Your task to perform on an android device: make emails show in primary in the gmail app Image 0: 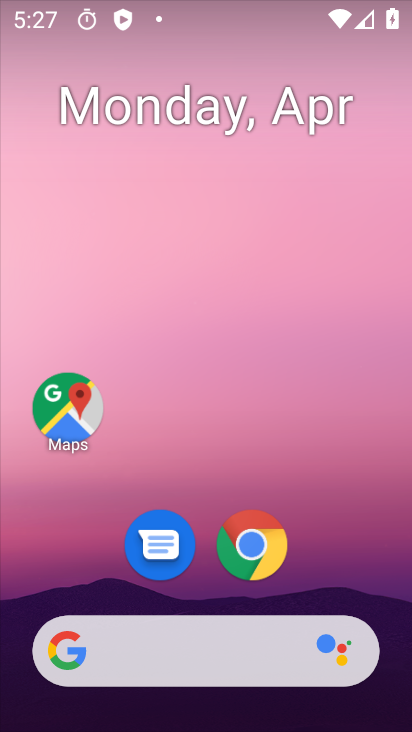
Step 0: drag from (330, 519) to (356, 184)
Your task to perform on an android device: make emails show in primary in the gmail app Image 1: 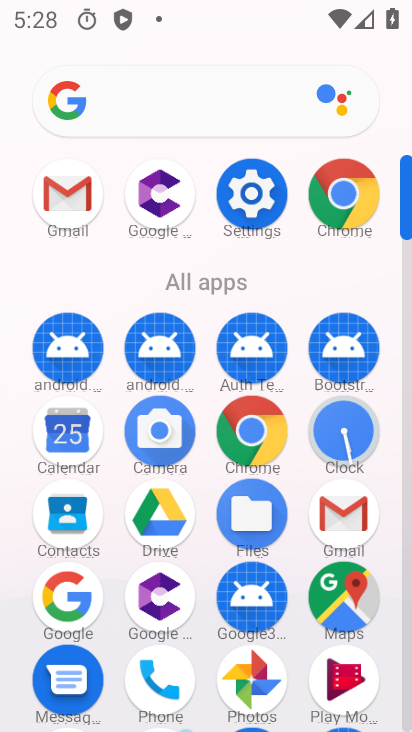
Step 1: click (348, 513)
Your task to perform on an android device: make emails show in primary in the gmail app Image 2: 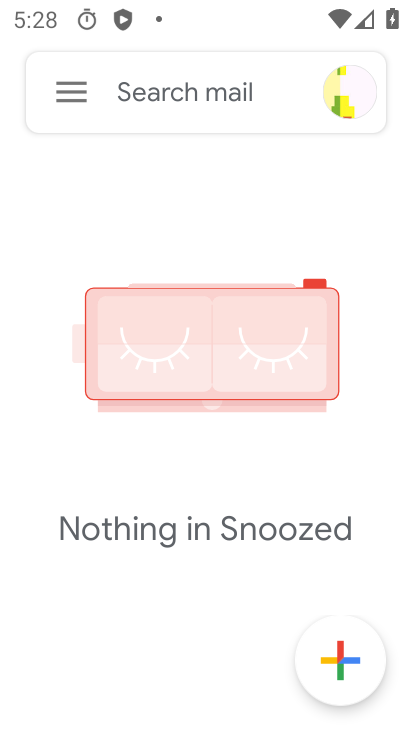
Step 2: click (80, 93)
Your task to perform on an android device: make emails show in primary in the gmail app Image 3: 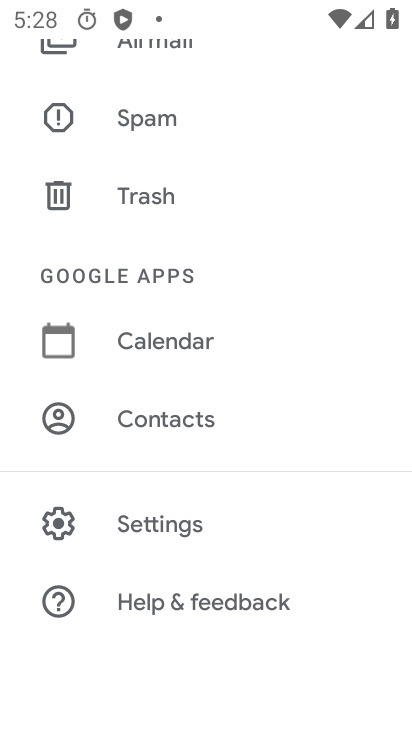
Step 3: task complete